Your task to perform on an android device: open app "Flipkart Online Shopping App" Image 0: 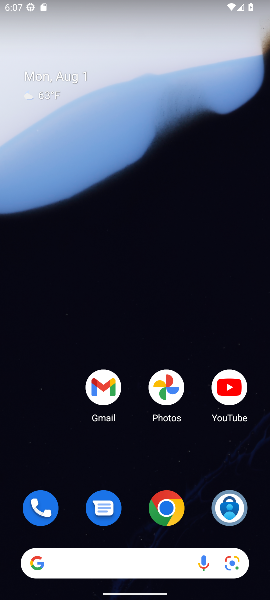
Step 0: drag from (142, 543) to (218, 501)
Your task to perform on an android device: open app "Flipkart Online Shopping App" Image 1: 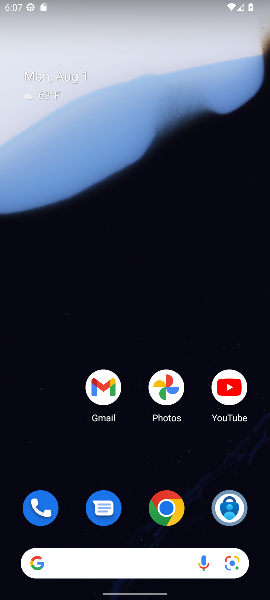
Step 1: drag from (136, 450) to (92, 134)
Your task to perform on an android device: open app "Flipkart Online Shopping App" Image 2: 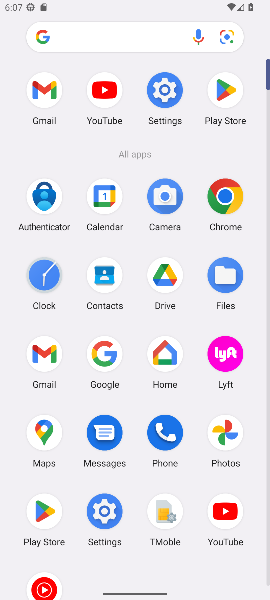
Step 2: click (38, 515)
Your task to perform on an android device: open app "Flipkart Online Shopping App" Image 3: 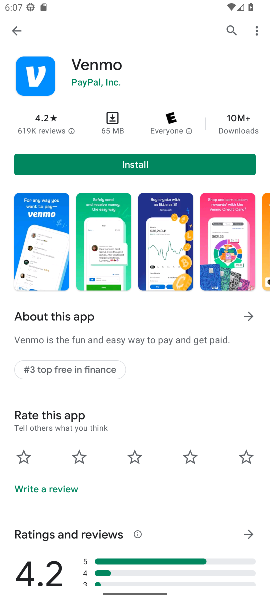
Step 3: click (16, 34)
Your task to perform on an android device: open app "Flipkart Online Shopping App" Image 4: 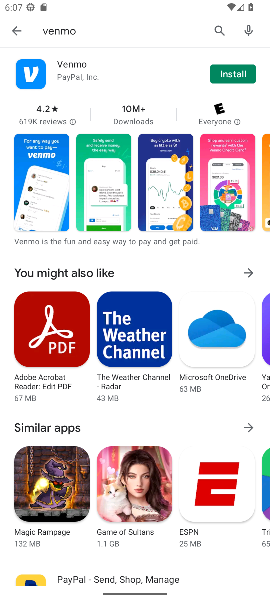
Step 4: click (14, 32)
Your task to perform on an android device: open app "Flipkart Online Shopping App" Image 5: 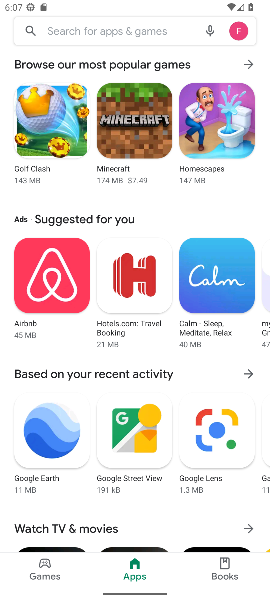
Step 5: click (73, 30)
Your task to perform on an android device: open app "Flipkart Online Shopping App" Image 6: 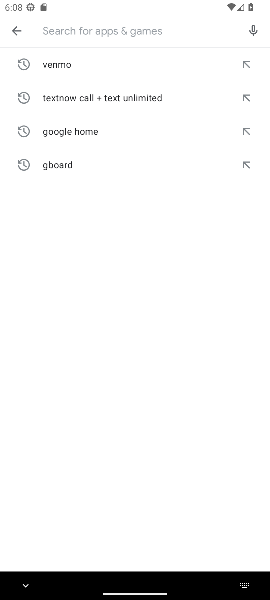
Step 6: type "Flipkart Online Shopping App"
Your task to perform on an android device: open app "Flipkart Online Shopping App" Image 7: 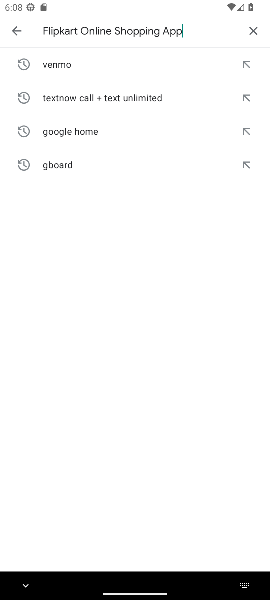
Step 7: type ""
Your task to perform on an android device: open app "Flipkart Online Shopping App" Image 8: 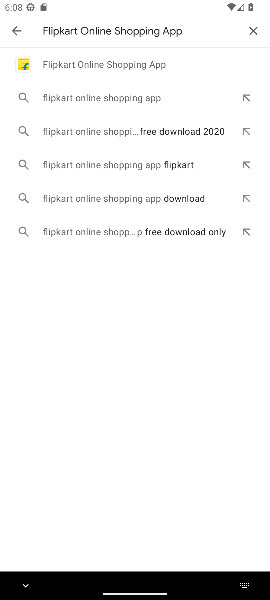
Step 8: click (40, 50)
Your task to perform on an android device: open app "Flipkart Online Shopping App" Image 9: 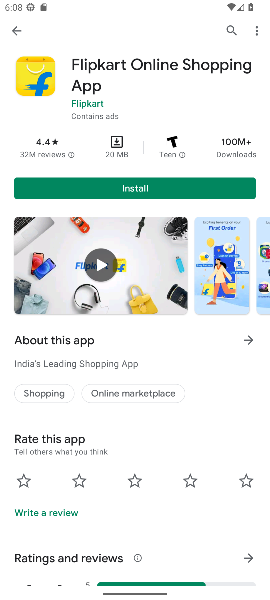
Step 9: task complete